Your task to perform on an android device: set the timer Image 0: 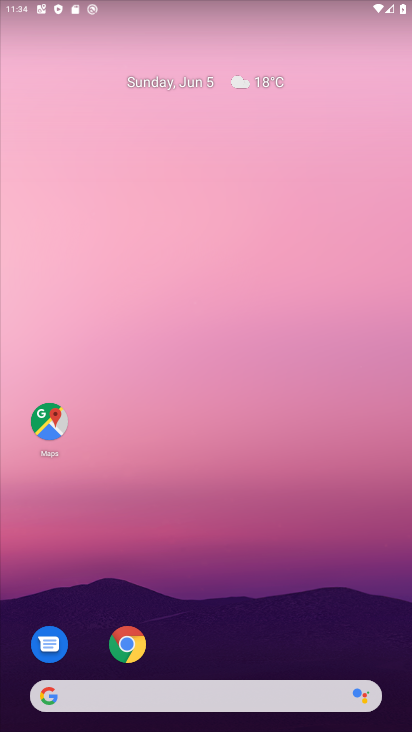
Step 0: drag from (255, 722) to (267, 256)
Your task to perform on an android device: set the timer Image 1: 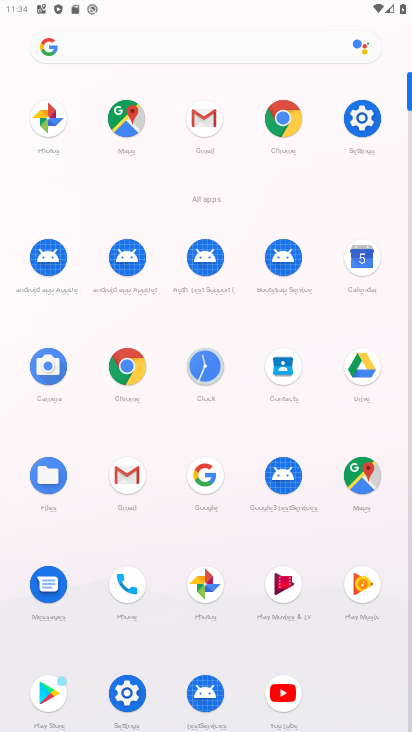
Step 1: click (187, 371)
Your task to perform on an android device: set the timer Image 2: 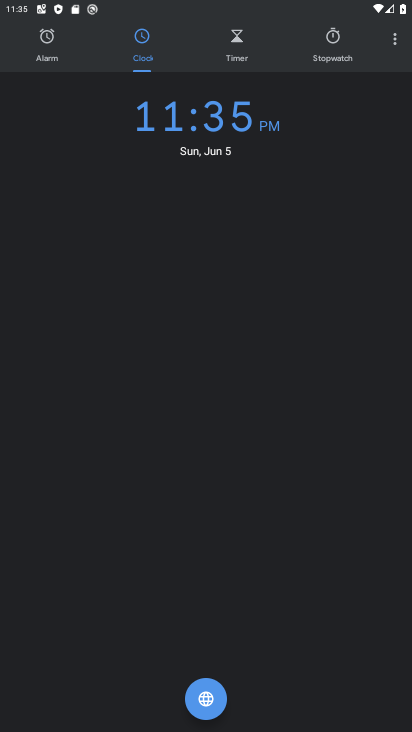
Step 2: click (250, 41)
Your task to perform on an android device: set the timer Image 3: 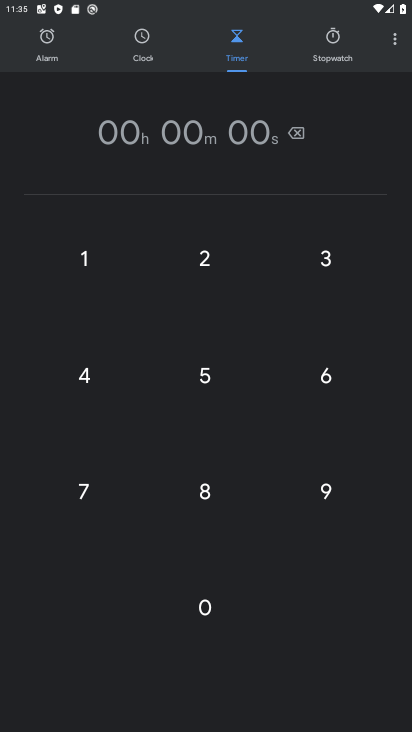
Step 3: click (198, 274)
Your task to perform on an android device: set the timer Image 4: 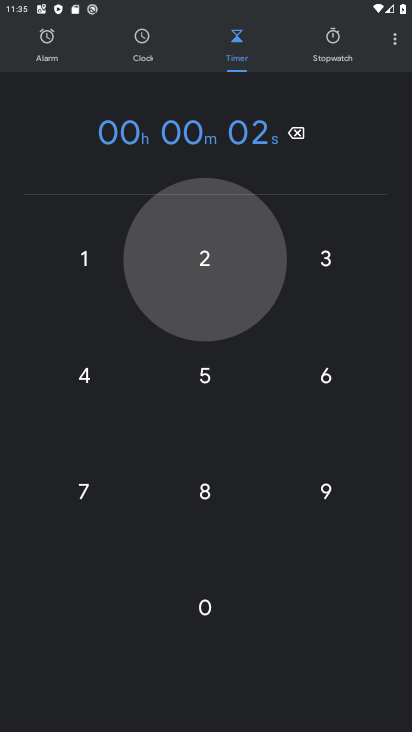
Step 4: click (197, 386)
Your task to perform on an android device: set the timer Image 5: 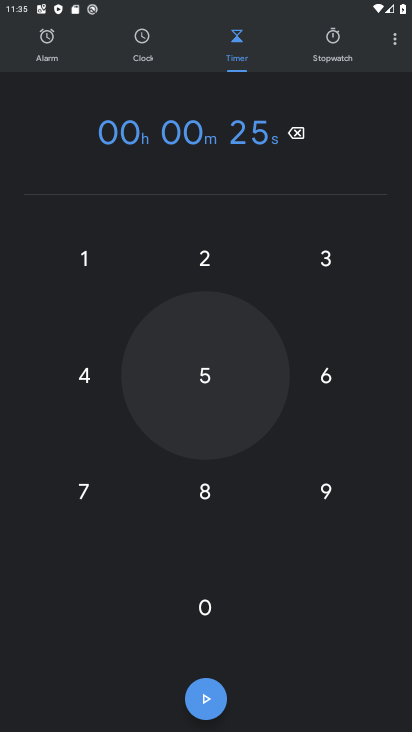
Step 5: click (101, 385)
Your task to perform on an android device: set the timer Image 6: 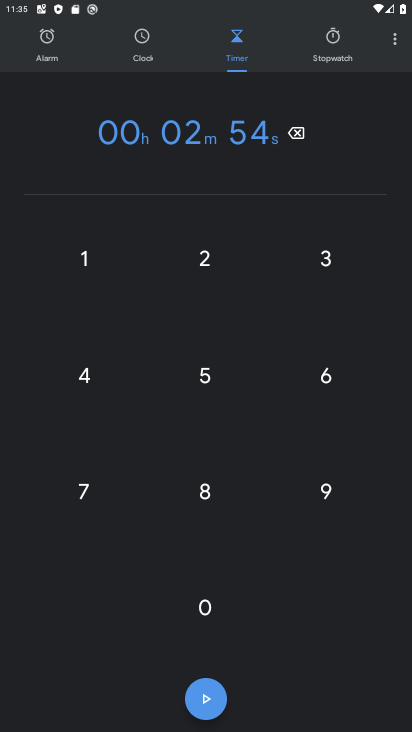
Step 6: task complete